Your task to perform on an android device: Open privacy settings Image 0: 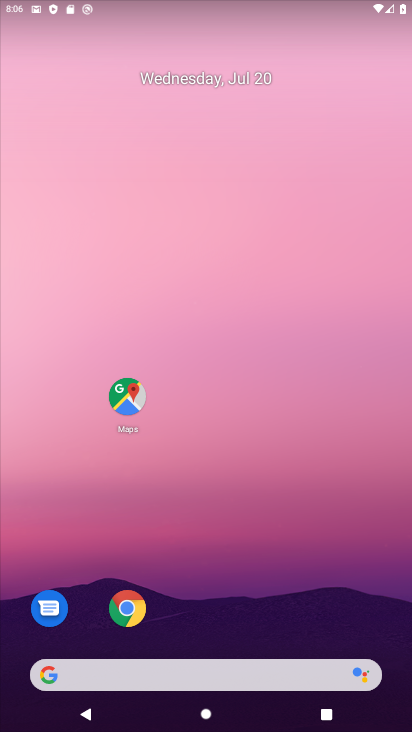
Step 0: task complete